Your task to perform on an android device: turn off picture-in-picture Image 0: 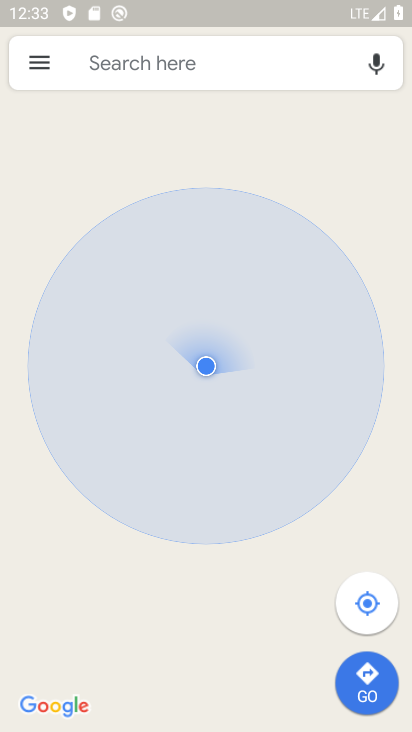
Step 0: press home button
Your task to perform on an android device: turn off picture-in-picture Image 1: 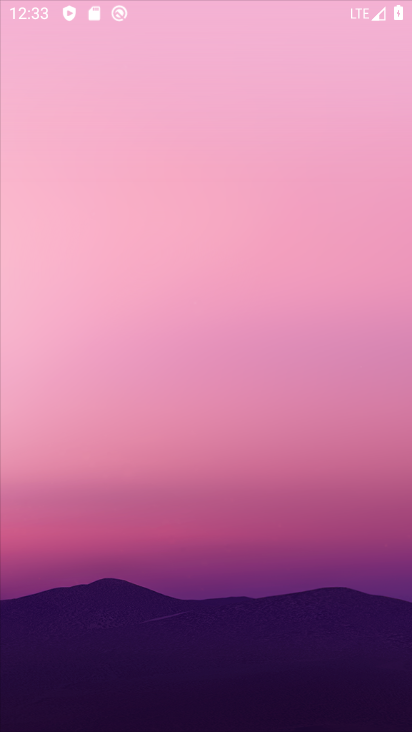
Step 1: drag from (221, 616) to (314, 107)
Your task to perform on an android device: turn off picture-in-picture Image 2: 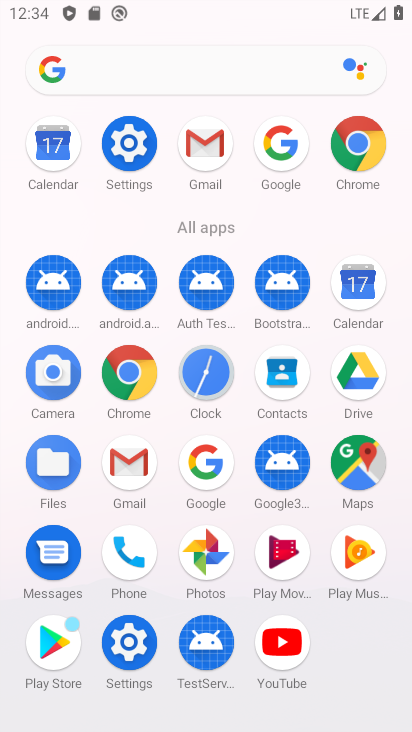
Step 2: click (132, 155)
Your task to perform on an android device: turn off picture-in-picture Image 3: 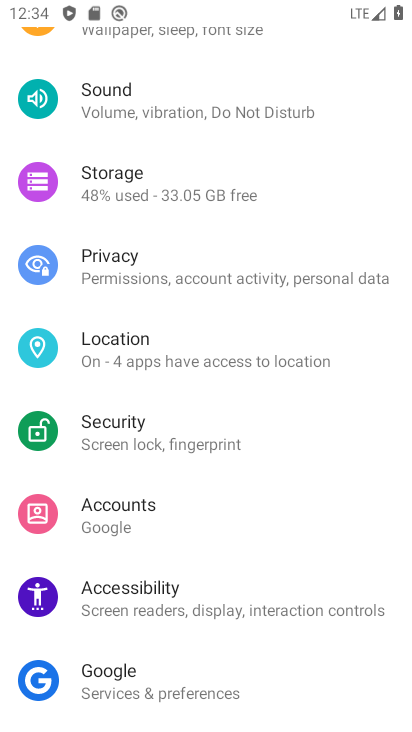
Step 3: click (135, 502)
Your task to perform on an android device: turn off picture-in-picture Image 4: 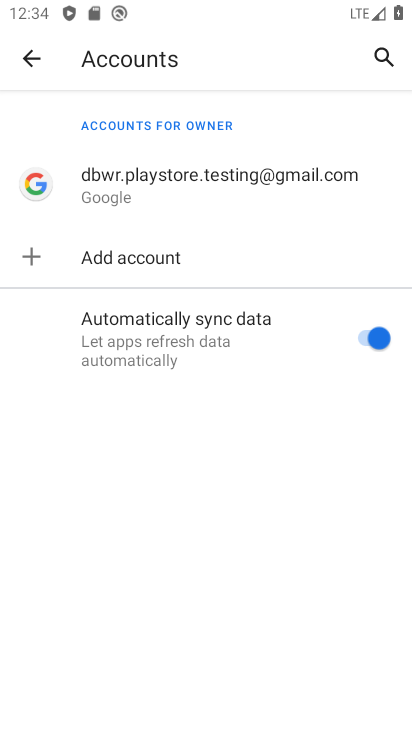
Step 4: click (23, 48)
Your task to perform on an android device: turn off picture-in-picture Image 5: 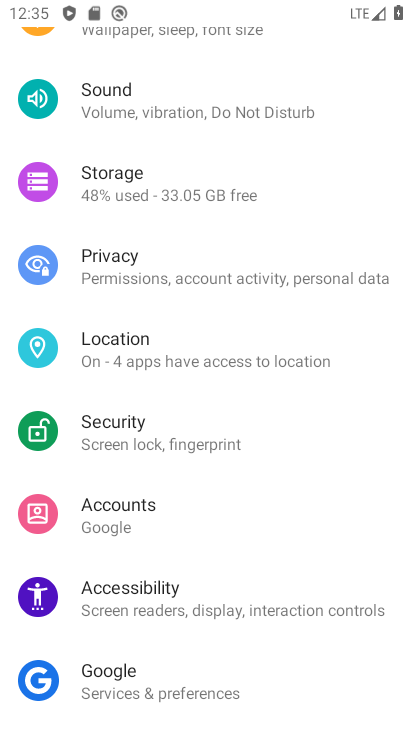
Step 5: drag from (162, 191) to (119, 613)
Your task to perform on an android device: turn off picture-in-picture Image 6: 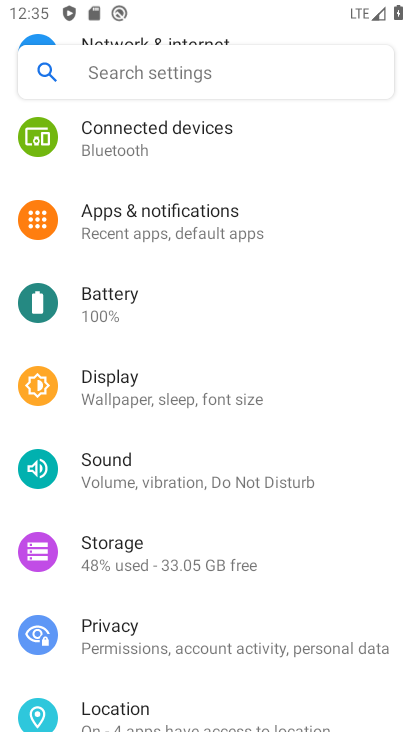
Step 6: click (120, 236)
Your task to perform on an android device: turn off picture-in-picture Image 7: 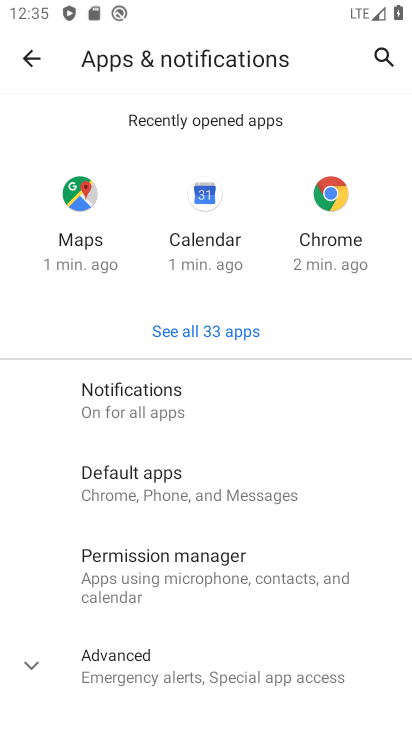
Step 7: click (140, 681)
Your task to perform on an android device: turn off picture-in-picture Image 8: 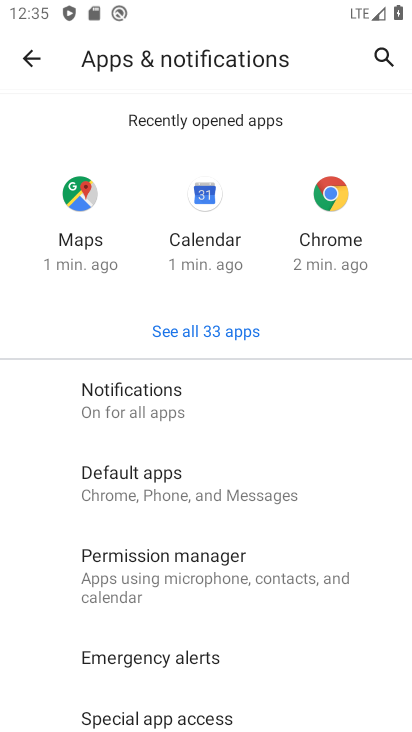
Step 8: drag from (167, 673) to (193, 299)
Your task to perform on an android device: turn off picture-in-picture Image 9: 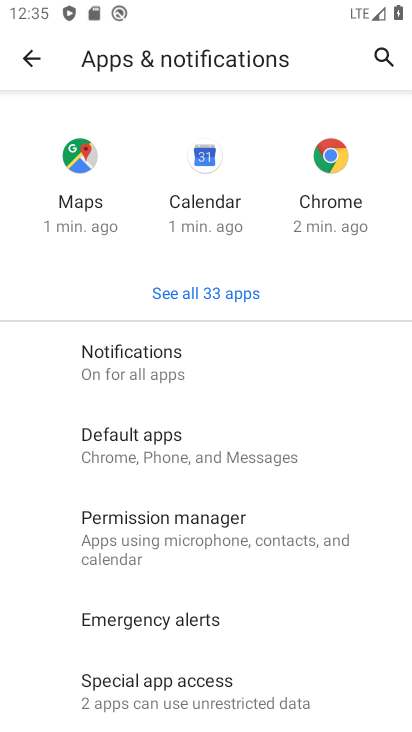
Step 9: click (162, 703)
Your task to perform on an android device: turn off picture-in-picture Image 10: 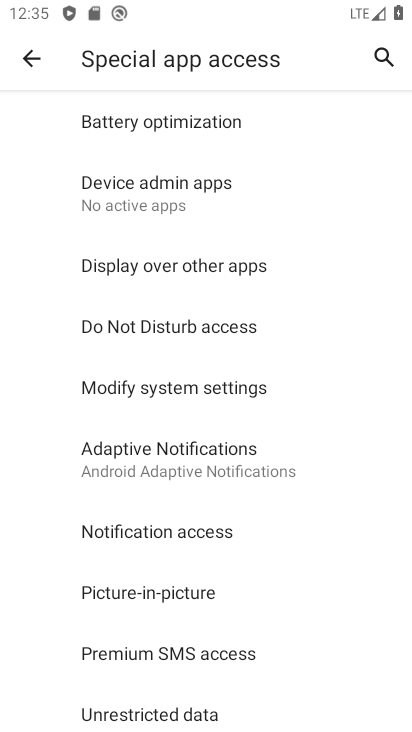
Step 10: click (171, 601)
Your task to perform on an android device: turn off picture-in-picture Image 11: 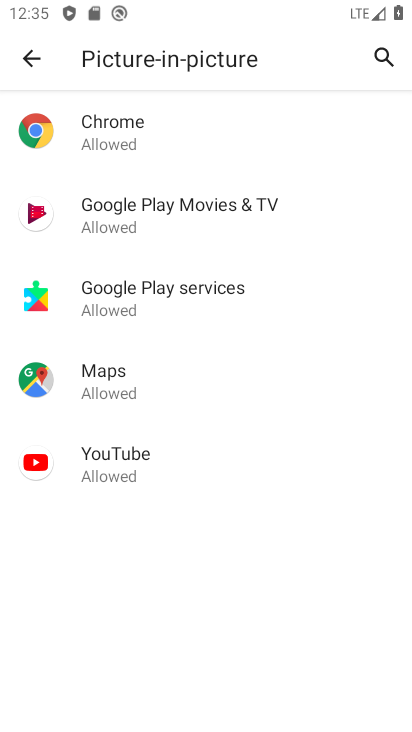
Step 11: click (122, 131)
Your task to perform on an android device: turn off picture-in-picture Image 12: 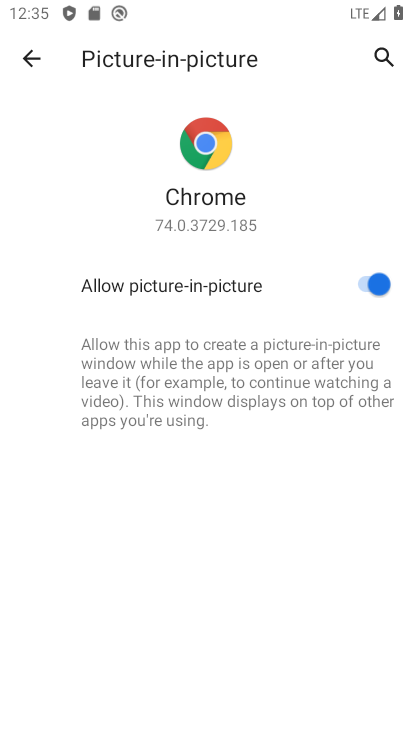
Step 12: click (361, 284)
Your task to perform on an android device: turn off picture-in-picture Image 13: 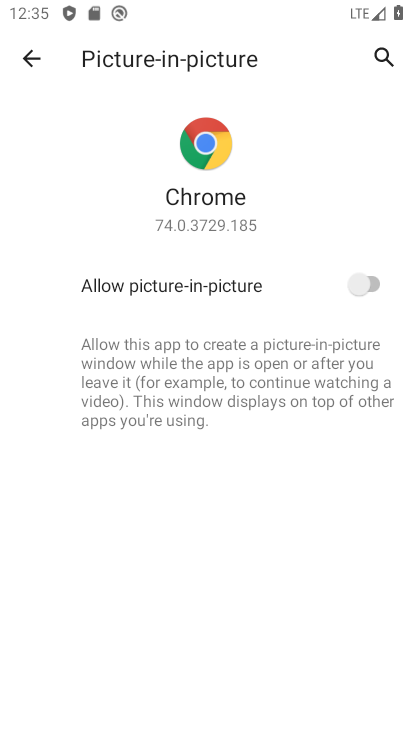
Step 13: task complete